Your task to perform on an android device: Go to Google Image 0: 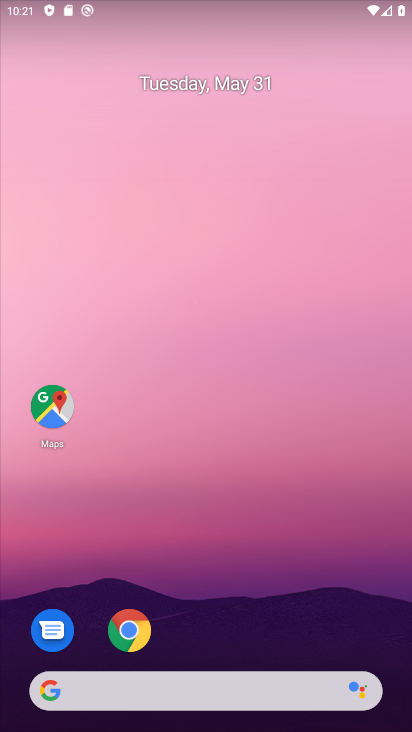
Step 0: click (165, 692)
Your task to perform on an android device: Go to Google Image 1: 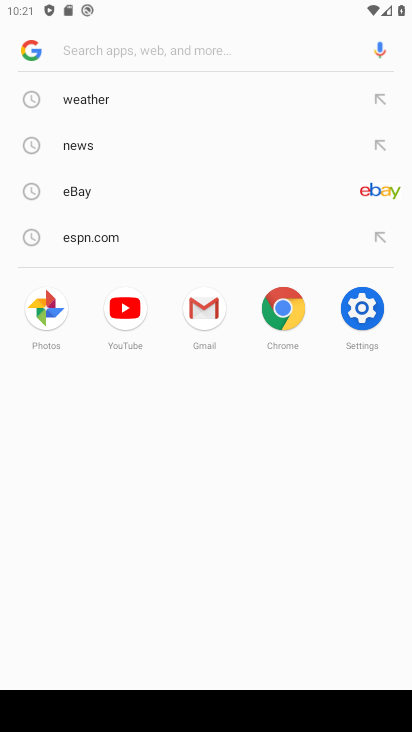
Step 1: task complete